Your task to perform on an android device: Open CNN.com Image 0: 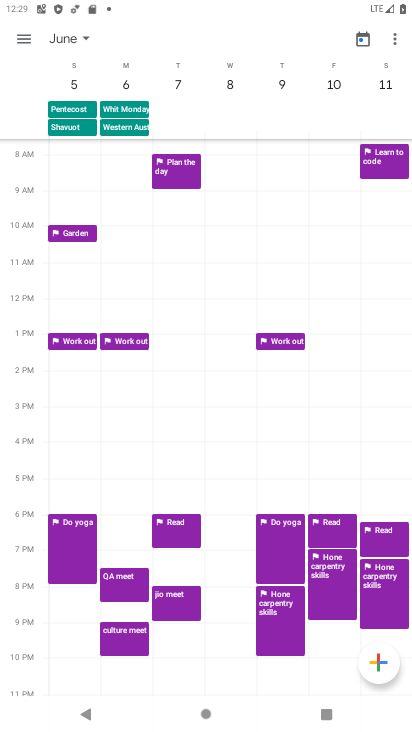
Step 0: press home button
Your task to perform on an android device: Open CNN.com Image 1: 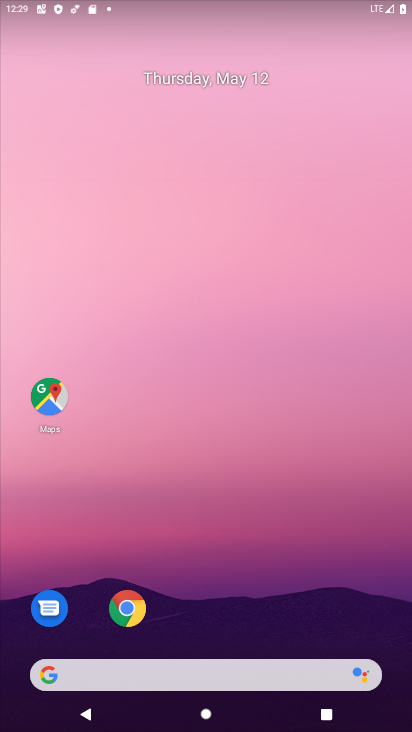
Step 1: click (133, 627)
Your task to perform on an android device: Open CNN.com Image 2: 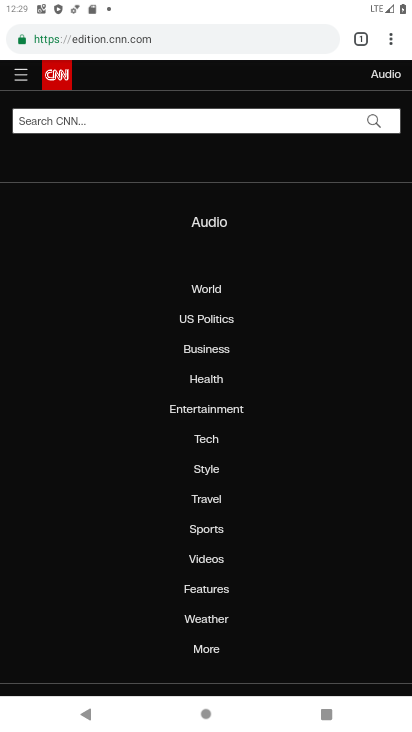
Step 2: task complete